Your task to perform on an android device: change keyboard looks Image 0: 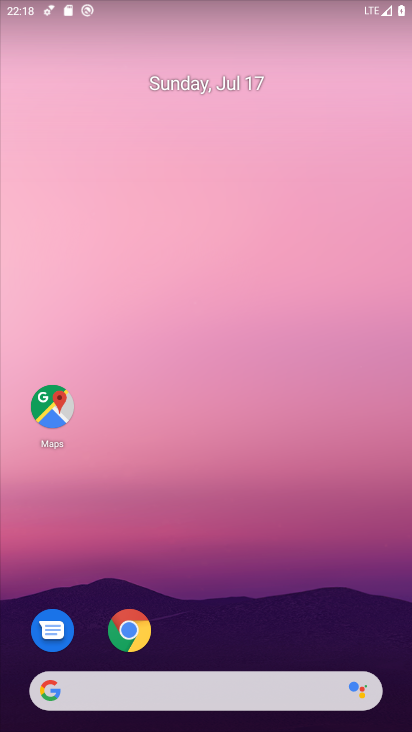
Step 0: drag from (216, 538) to (218, 35)
Your task to perform on an android device: change keyboard looks Image 1: 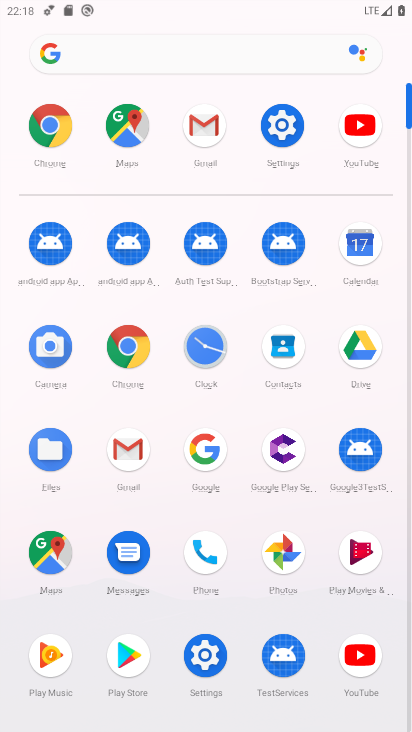
Step 1: click (200, 666)
Your task to perform on an android device: change keyboard looks Image 2: 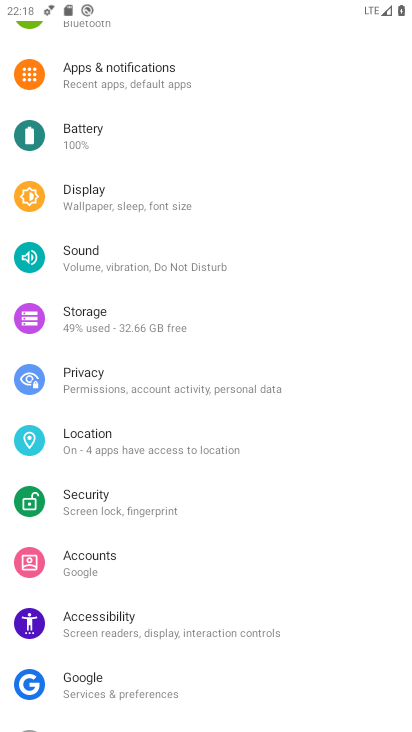
Step 2: drag from (155, 216) to (179, 6)
Your task to perform on an android device: change keyboard looks Image 3: 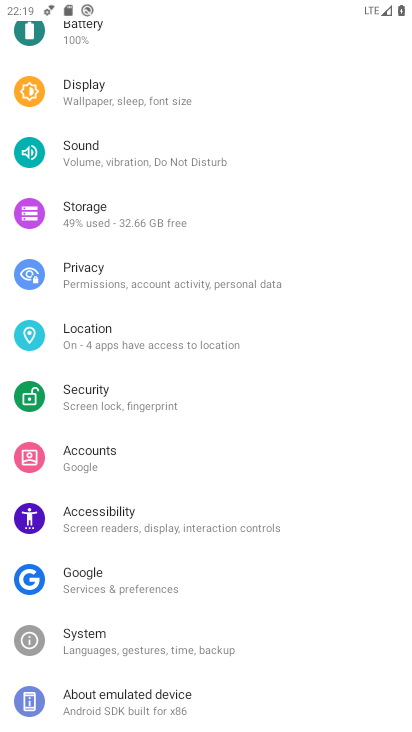
Step 3: click (112, 639)
Your task to perform on an android device: change keyboard looks Image 4: 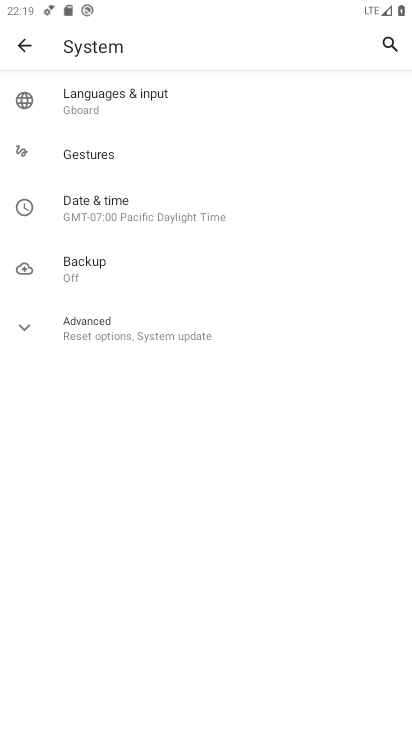
Step 4: click (94, 94)
Your task to perform on an android device: change keyboard looks Image 5: 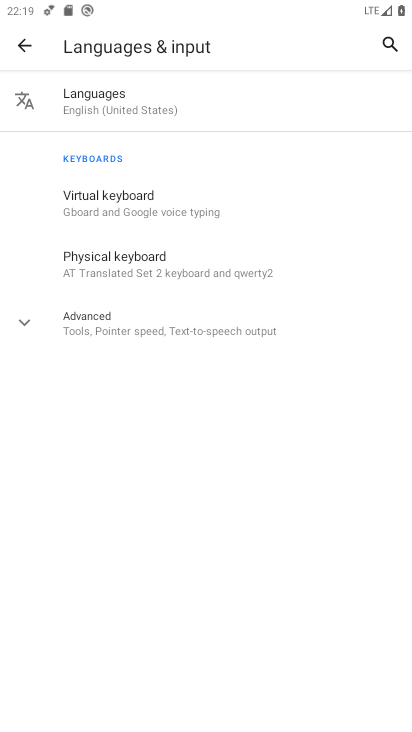
Step 5: click (117, 208)
Your task to perform on an android device: change keyboard looks Image 6: 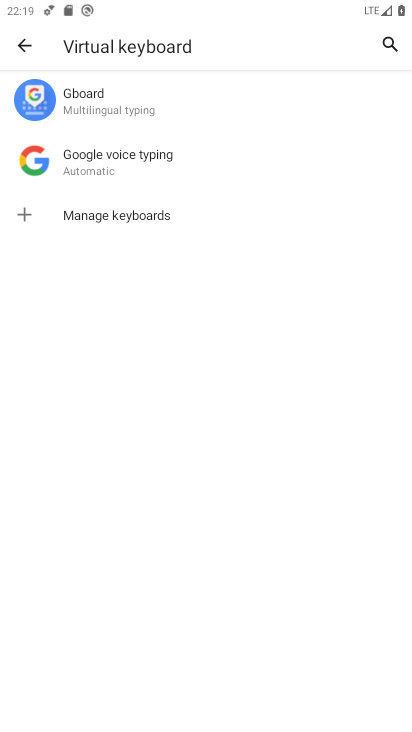
Step 6: click (99, 103)
Your task to perform on an android device: change keyboard looks Image 7: 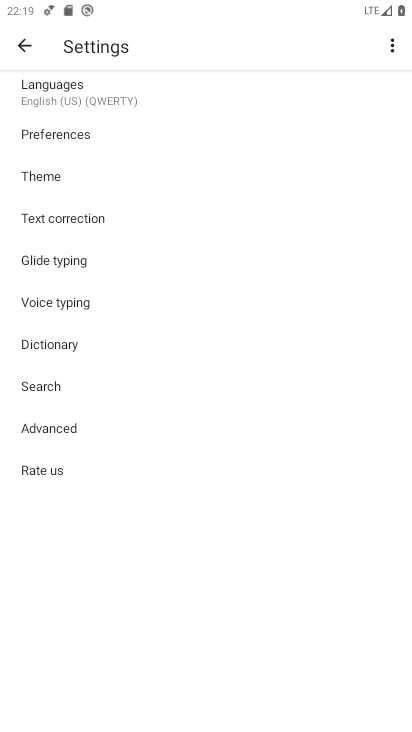
Step 7: click (34, 176)
Your task to perform on an android device: change keyboard looks Image 8: 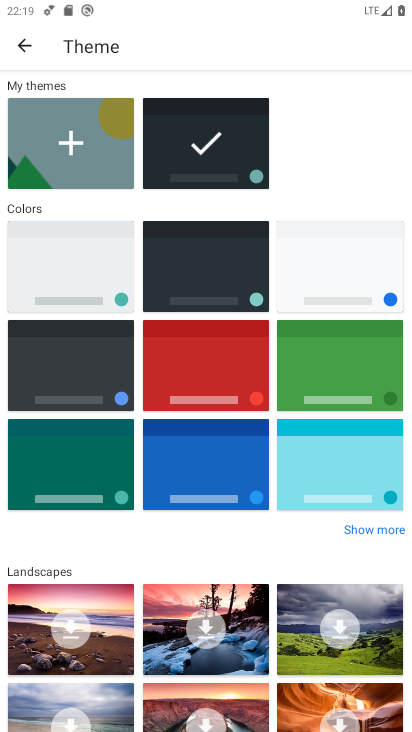
Step 8: click (184, 276)
Your task to perform on an android device: change keyboard looks Image 9: 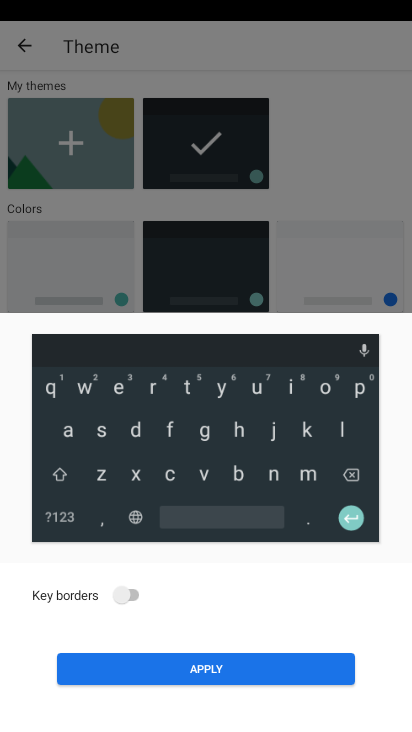
Step 9: click (230, 674)
Your task to perform on an android device: change keyboard looks Image 10: 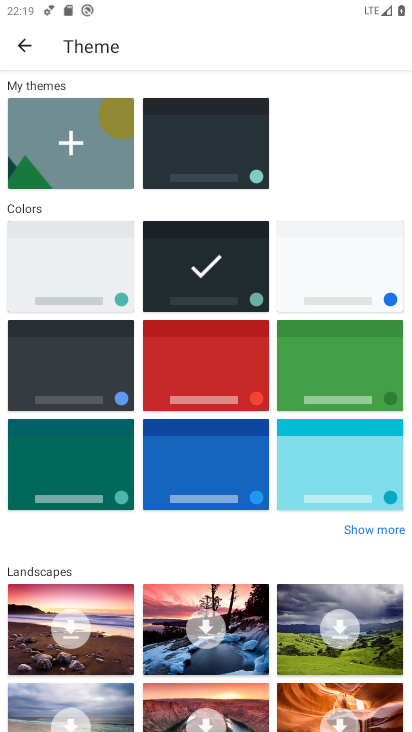
Step 10: task complete